Your task to perform on an android device: Go to battery settings Image 0: 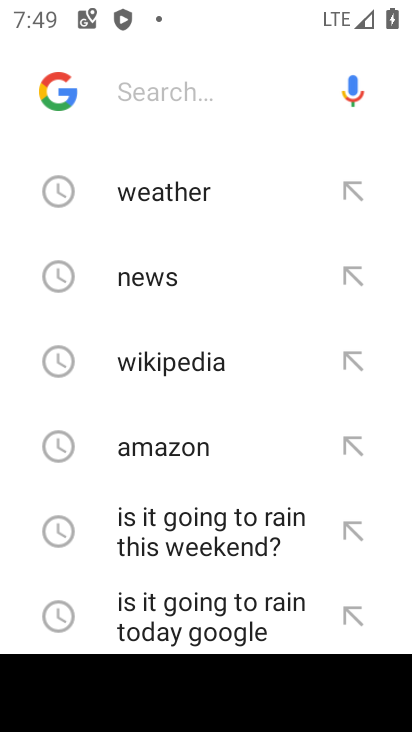
Step 0: press home button
Your task to perform on an android device: Go to battery settings Image 1: 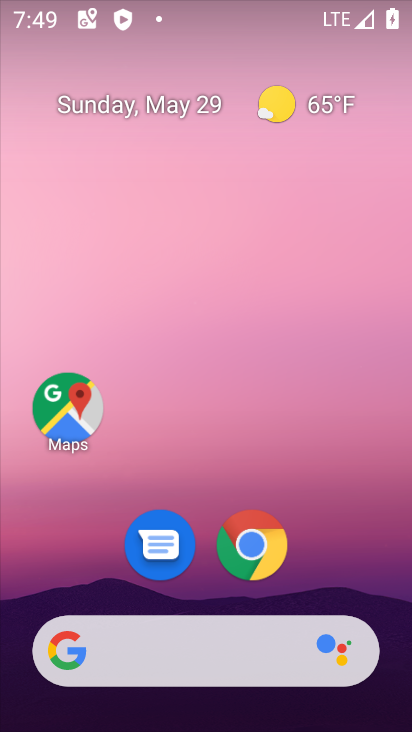
Step 1: drag from (197, 593) to (219, 212)
Your task to perform on an android device: Go to battery settings Image 2: 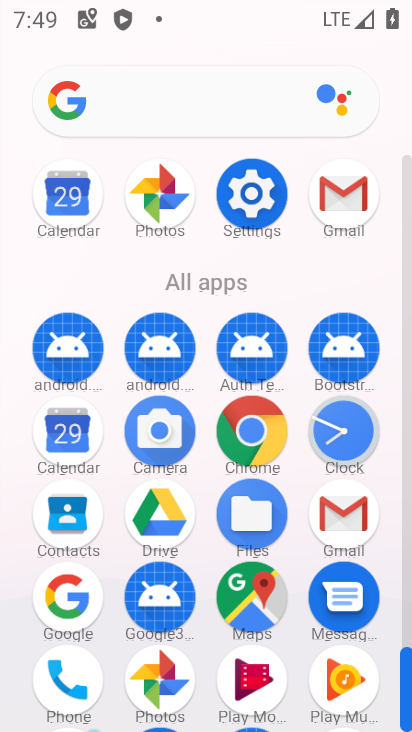
Step 2: click (254, 192)
Your task to perform on an android device: Go to battery settings Image 3: 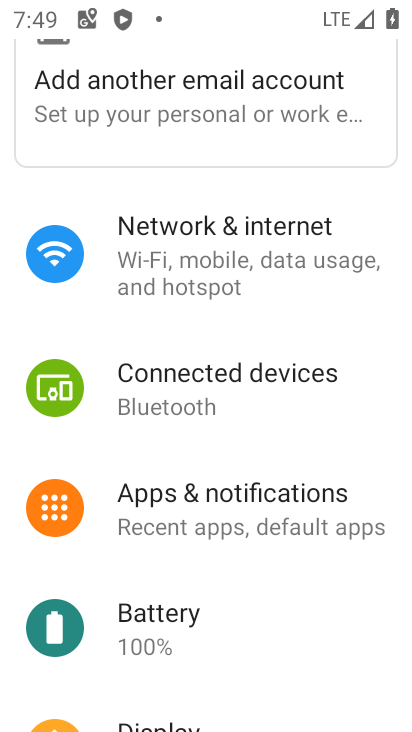
Step 3: click (151, 628)
Your task to perform on an android device: Go to battery settings Image 4: 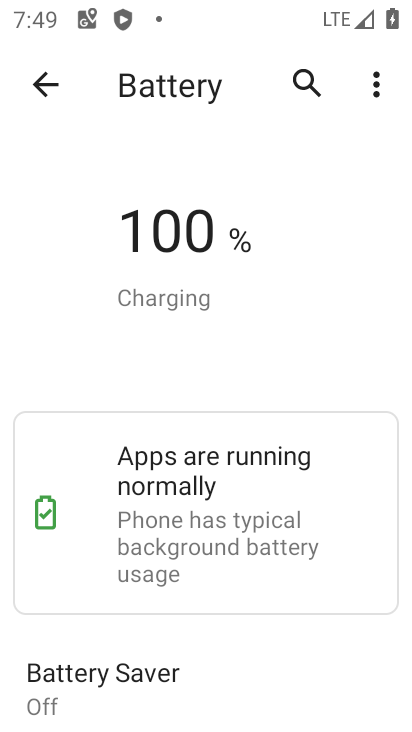
Step 4: task complete